Your task to perform on an android device: turn on showing notifications on the lock screen Image 0: 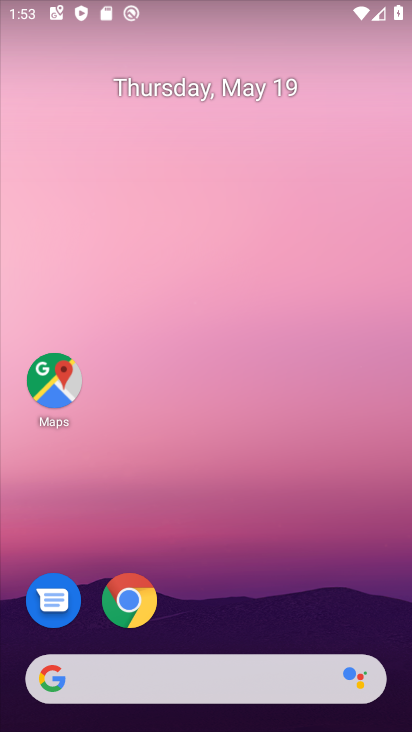
Step 0: press home button
Your task to perform on an android device: turn on showing notifications on the lock screen Image 1: 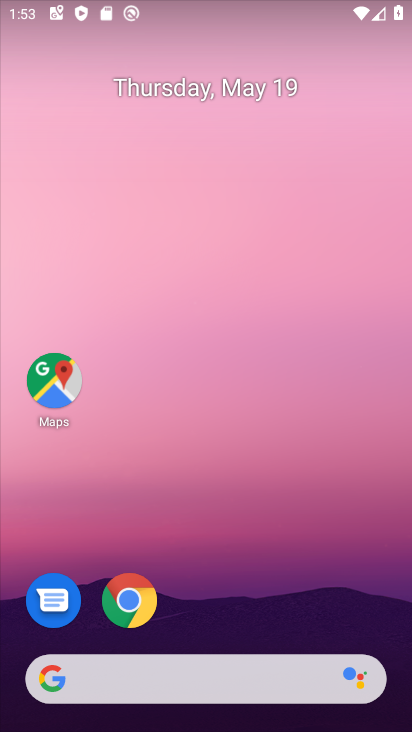
Step 1: drag from (37, 518) to (229, 143)
Your task to perform on an android device: turn on showing notifications on the lock screen Image 2: 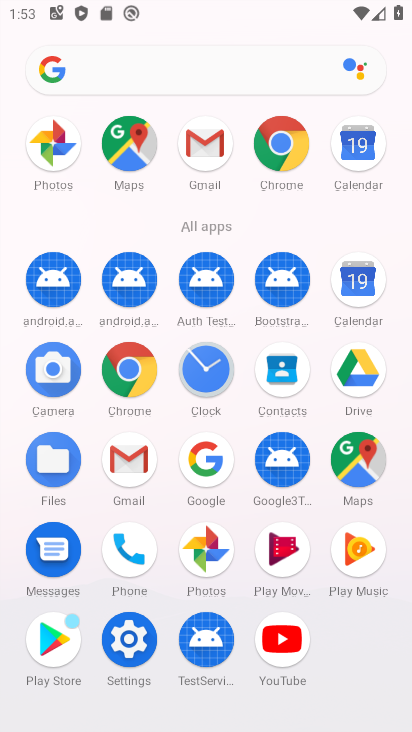
Step 2: click (133, 636)
Your task to perform on an android device: turn on showing notifications on the lock screen Image 3: 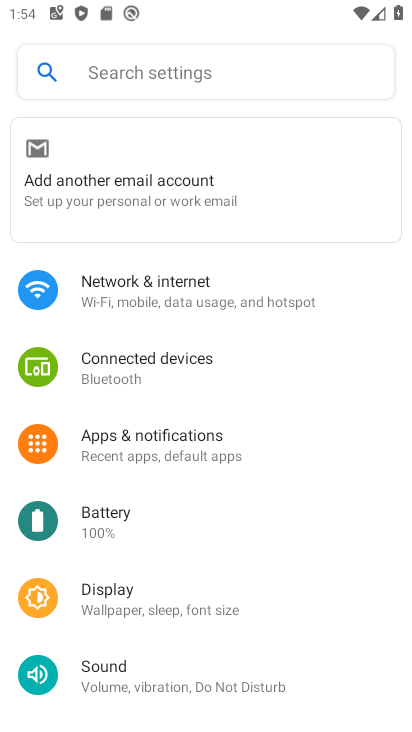
Step 3: click (203, 451)
Your task to perform on an android device: turn on showing notifications on the lock screen Image 4: 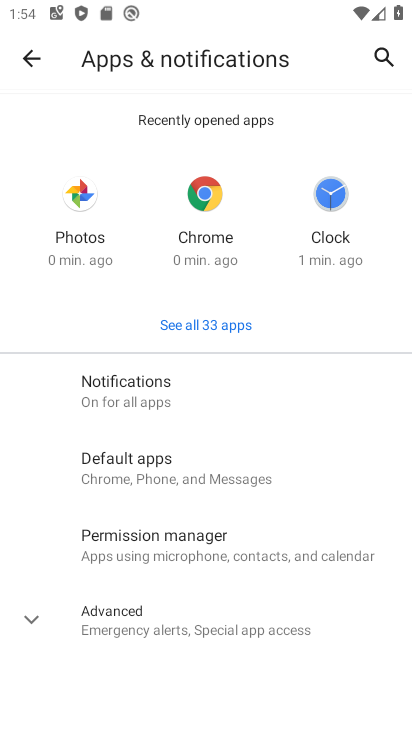
Step 4: click (165, 408)
Your task to perform on an android device: turn on showing notifications on the lock screen Image 5: 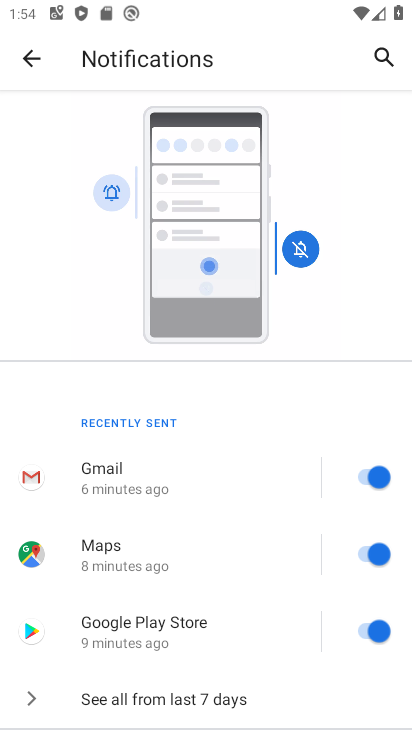
Step 5: drag from (9, 674) to (181, 240)
Your task to perform on an android device: turn on showing notifications on the lock screen Image 6: 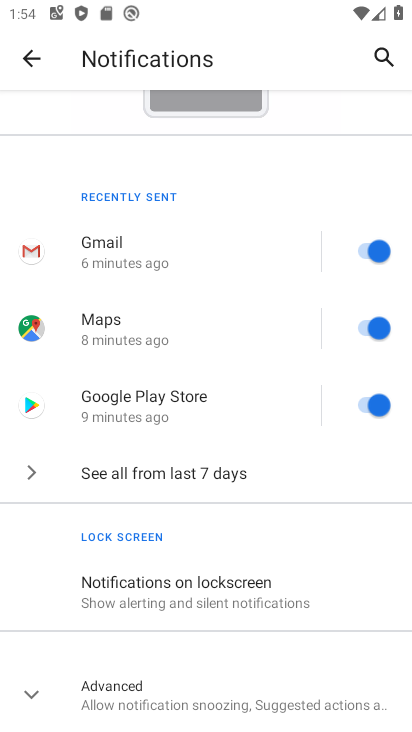
Step 6: click (180, 591)
Your task to perform on an android device: turn on showing notifications on the lock screen Image 7: 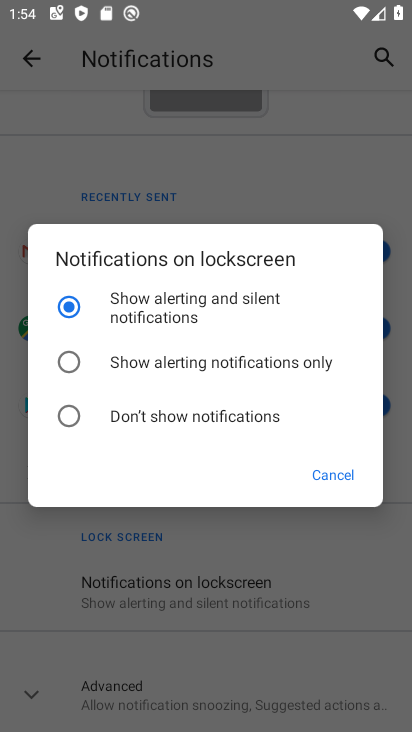
Step 7: task complete